Your task to perform on an android device: Open Google Maps Image 0: 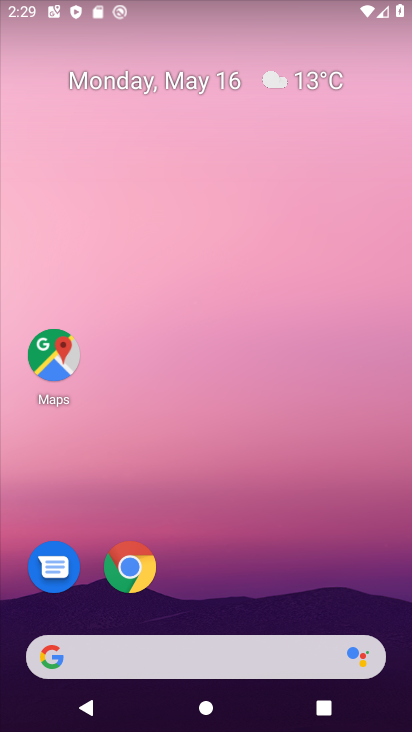
Step 0: click (59, 343)
Your task to perform on an android device: Open Google Maps Image 1: 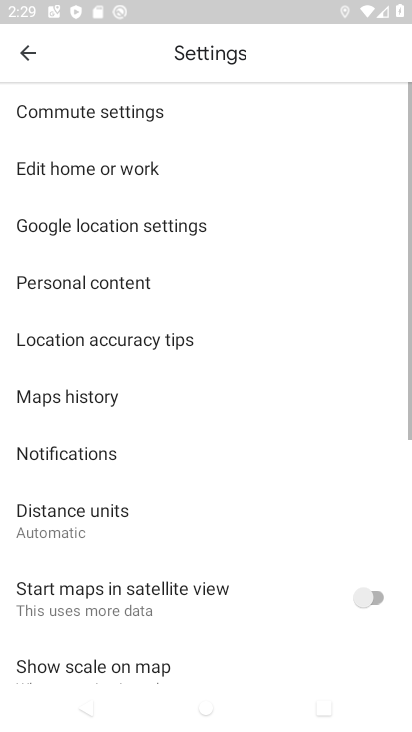
Step 1: task complete